Your task to perform on an android device: turn off priority inbox in the gmail app Image 0: 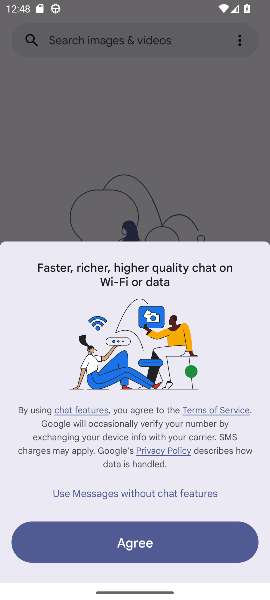
Step 0: press home button
Your task to perform on an android device: turn off priority inbox in the gmail app Image 1: 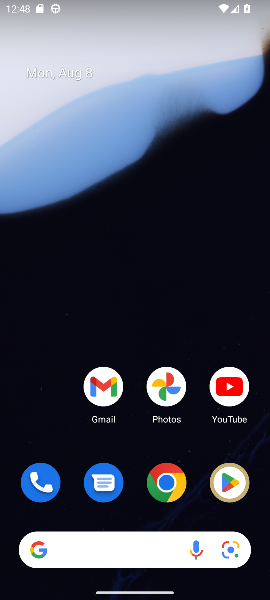
Step 1: drag from (157, 541) to (145, 115)
Your task to perform on an android device: turn off priority inbox in the gmail app Image 2: 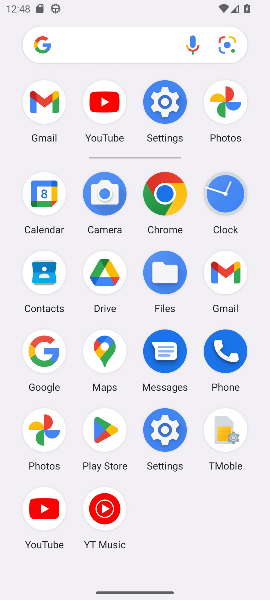
Step 2: click (225, 261)
Your task to perform on an android device: turn off priority inbox in the gmail app Image 3: 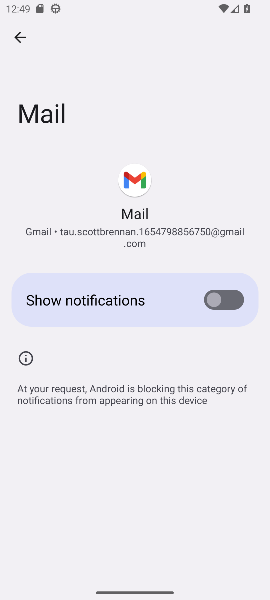
Step 3: press back button
Your task to perform on an android device: turn off priority inbox in the gmail app Image 4: 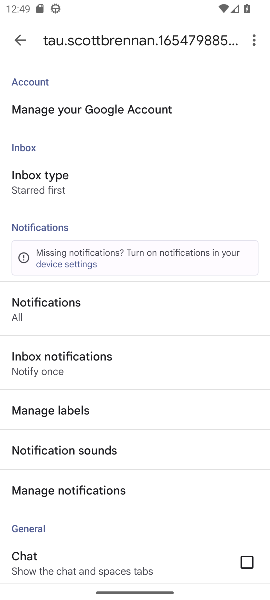
Step 4: click (68, 186)
Your task to perform on an android device: turn off priority inbox in the gmail app Image 5: 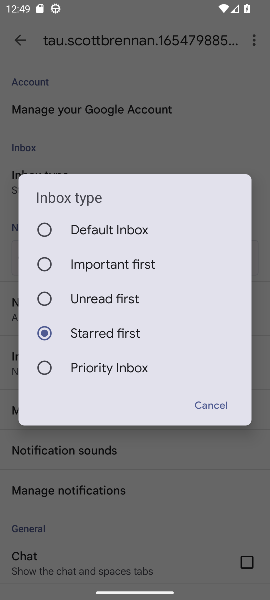
Step 5: click (46, 221)
Your task to perform on an android device: turn off priority inbox in the gmail app Image 6: 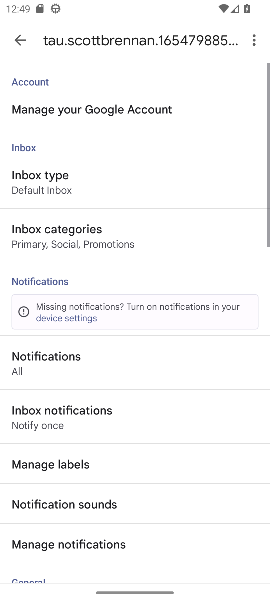
Step 6: task complete